Your task to perform on an android device: turn on wifi Image 0: 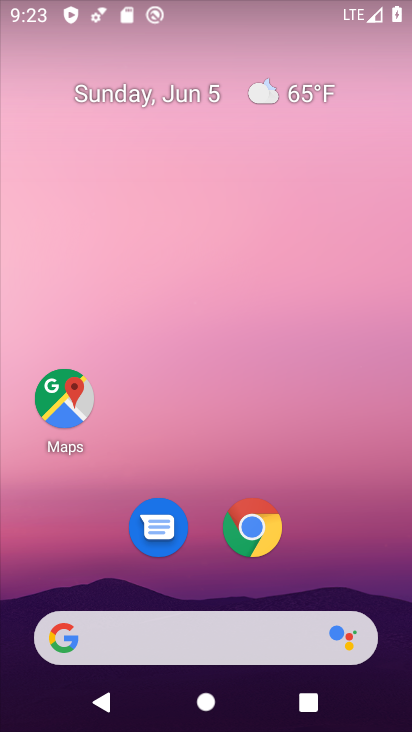
Step 0: drag from (68, 13) to (116, 477)
Your task to perform on an android device: turn on wifi Image 1: 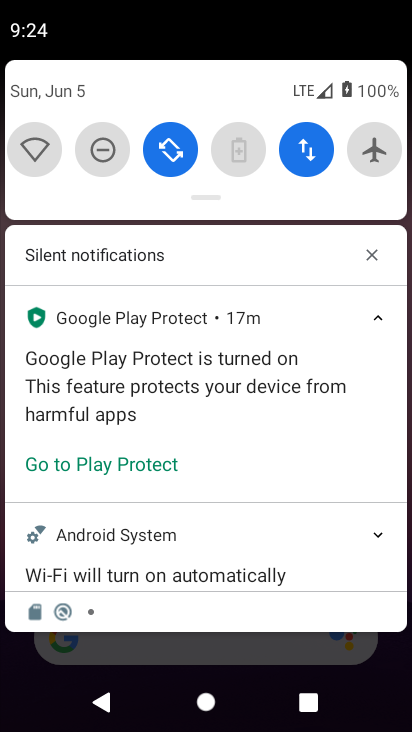
Step 1: click (35, 150)
Your task to perform on an android device: turn on wifi Image 2: 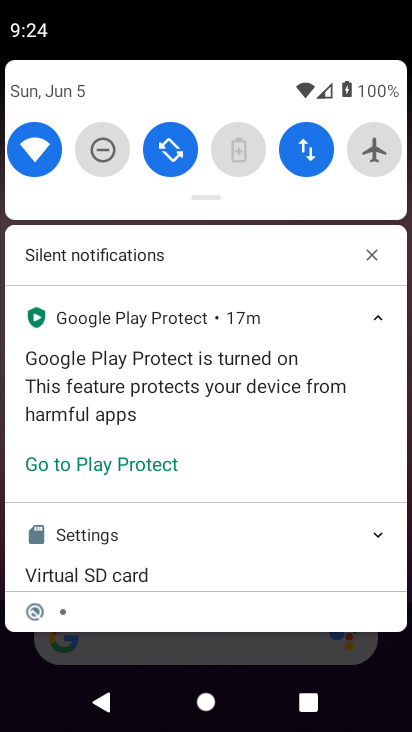
Step 2: task complete